Your task to perform on an android device: refresh tabs in the chrome app Image 0: 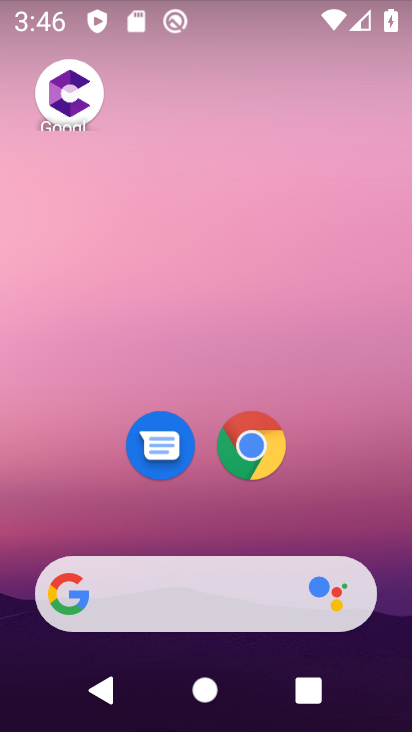
Step 0: click (247, 441)
Your task to perform on an android device: refresh tabs in the chrome app Image 1: 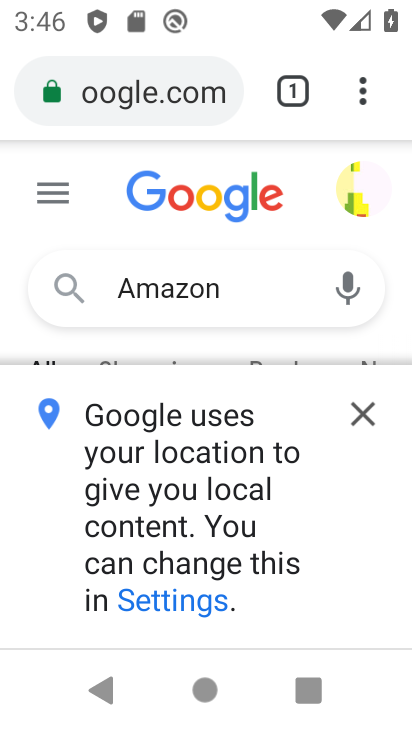
Step 1: click (362, 101)
Your task to perform on an android device: refresh tabs in the chrome app Image 2: 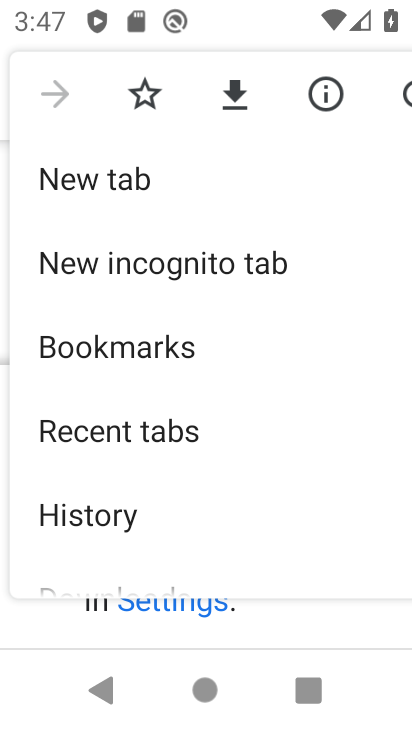
Step 2: click (407, 99)
Your task to perform on an android device: refresh tabs in the chrome app Image 3: 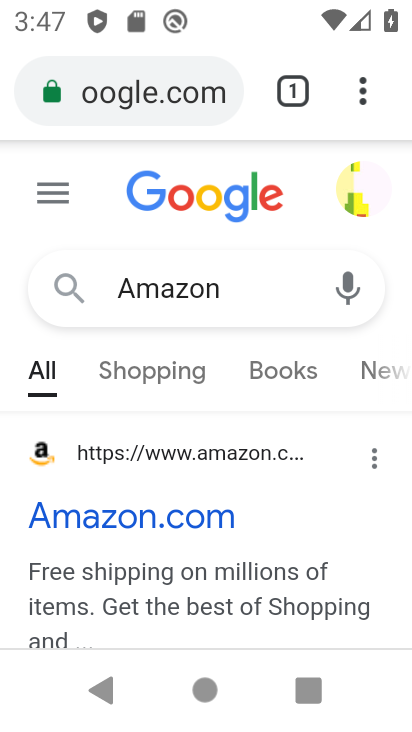
Step 3: task complete